Your task to perform on an android device: find which apps use the phone's location Image 0: 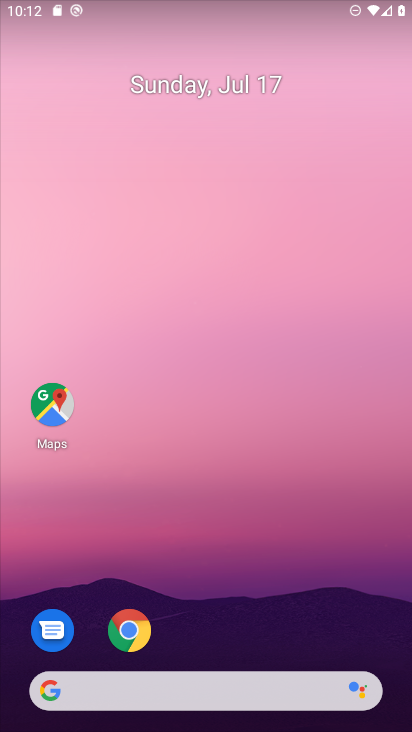
Step 0: drag from (158, 627) to (155, 207)
Your task to perform on an android device: find which apps use the phone's location Image 1: 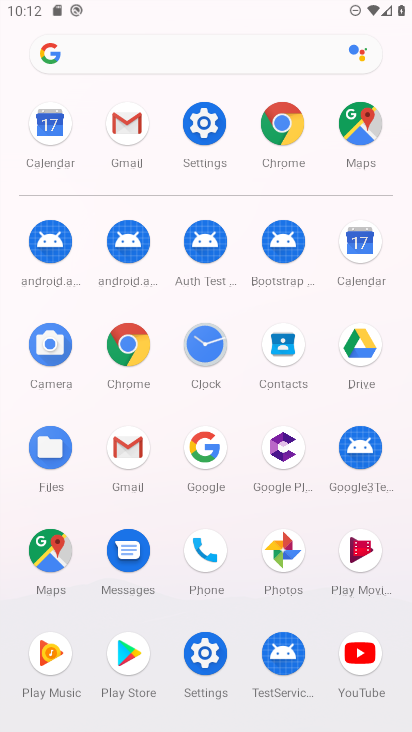
Step 1: click (194, 124)
Your task to perform on an android device: find which apps use the phone's location Image 2: 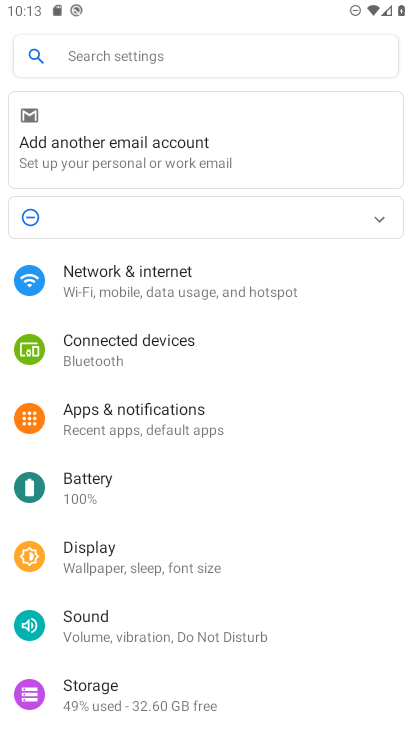
Step 2: drag from (142, 672) to (203, 160)
Your task to perform on an android device: find which apps use the phone's location Image 3: 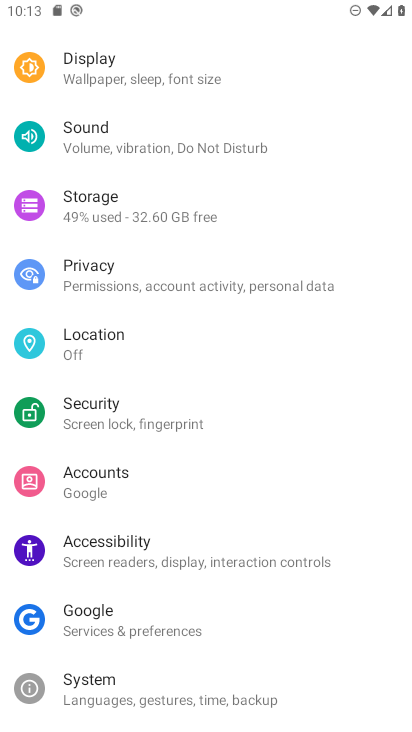
Step 3: click (104, 324)
Your task to perform on an android device: find which apps use the phone's location Image 4: 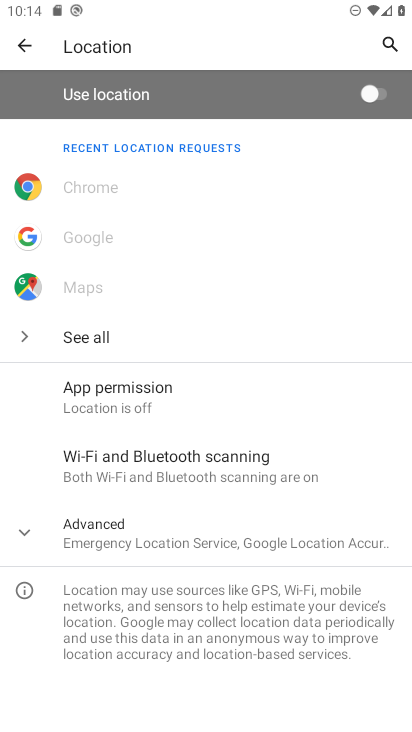
Step 4: task complete